Your task to perform on an android device: delete location history Image 0: 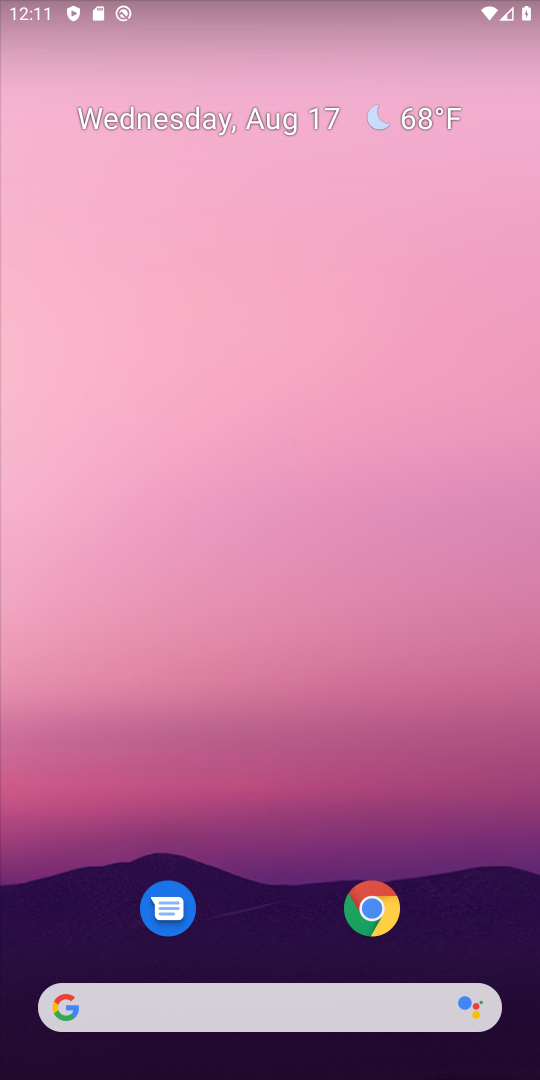
Step 0: drag from (276, 783) to (287, 123)
Your task to perform on an android device: delete location history Image 1: 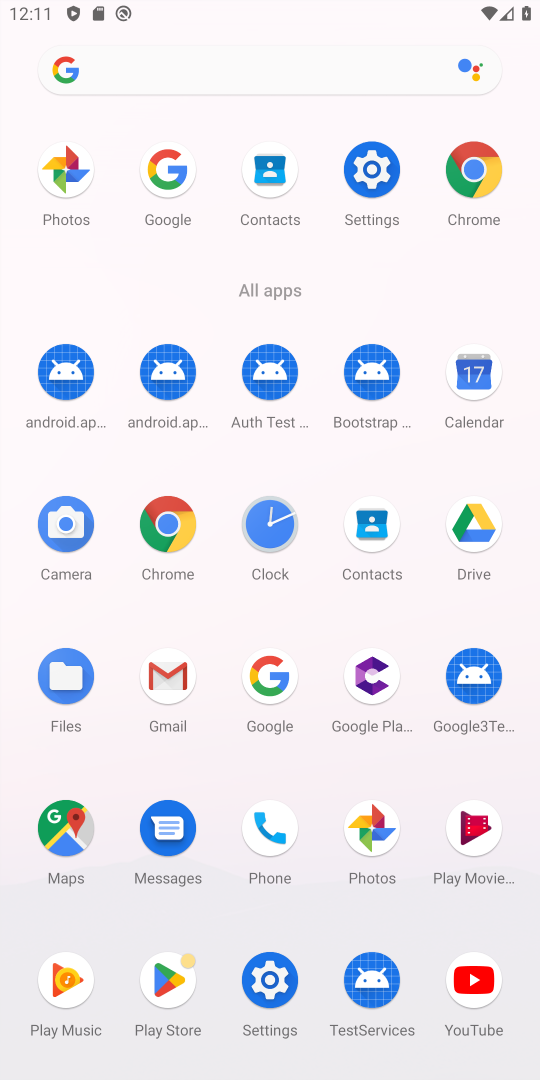
Step 1: click (61, 817)
Your task to perform on an android device: delete location history Image 2: 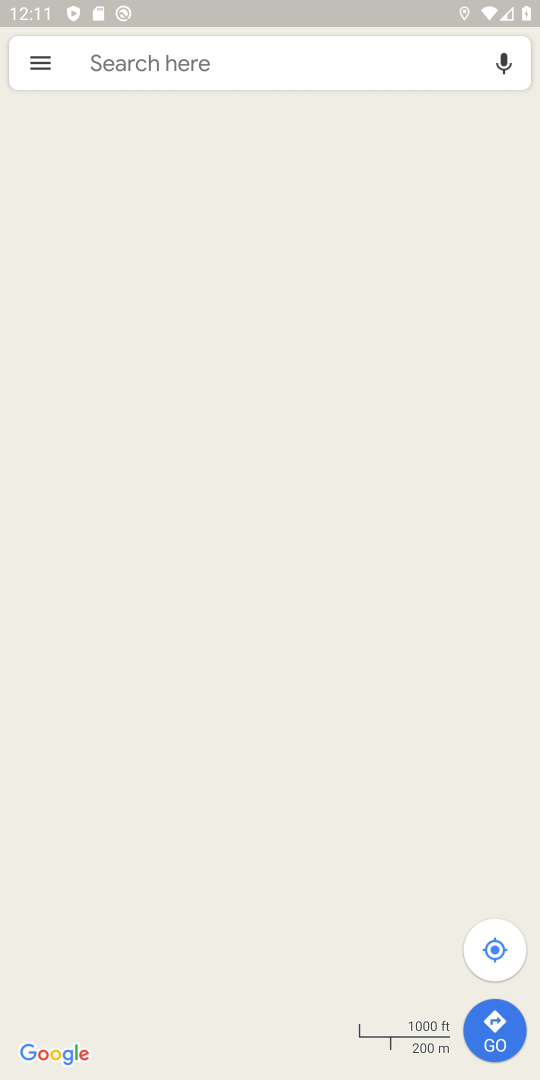
Step 2: click (37, 71)
Your task to perform on an android device: delete location history Image 3: 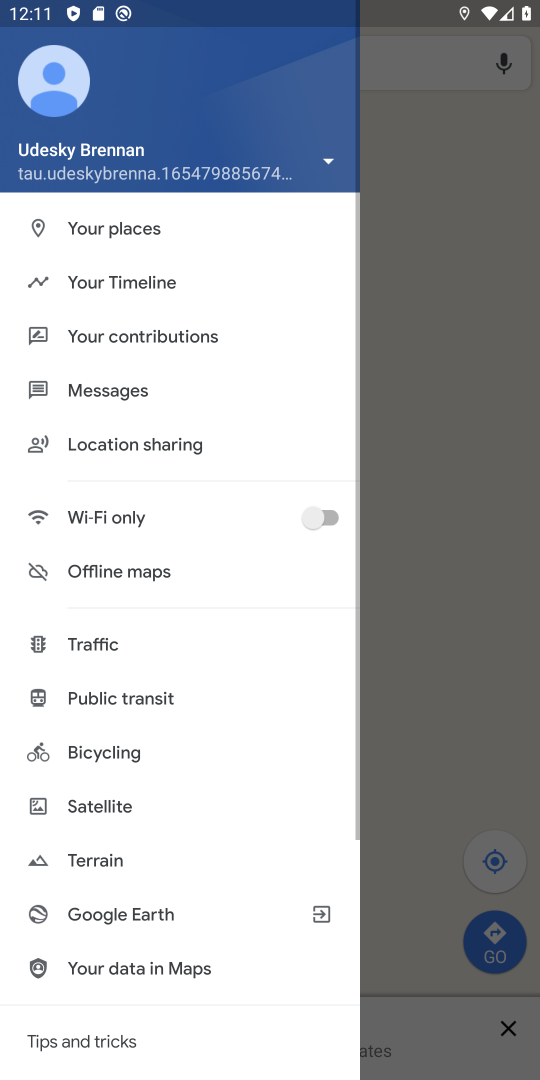
Step 3: click (81, 274)
Your task to perform on an android device: delete location history Image 4: 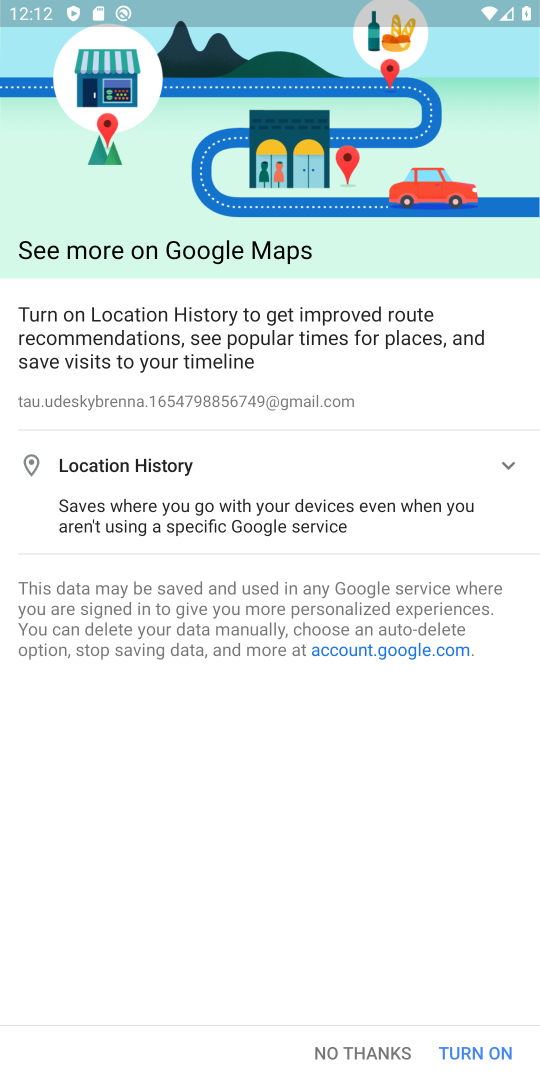
Step 4: click (446, 1045)
Your task to perform on an android device: delete location history Image 5: 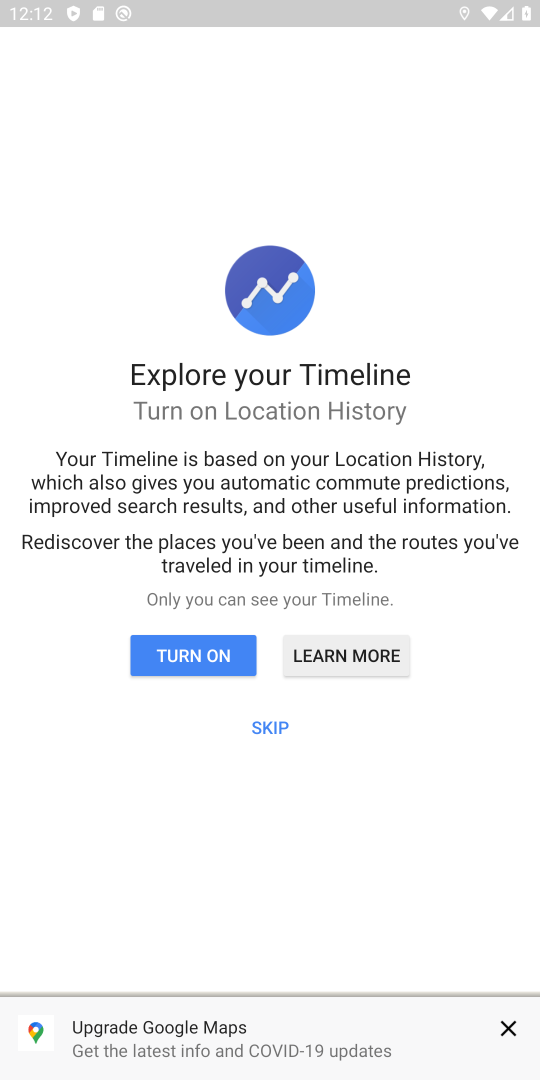
Step 5: click (293, 729)
Your task to perform on an android device: delete location history Image 6: 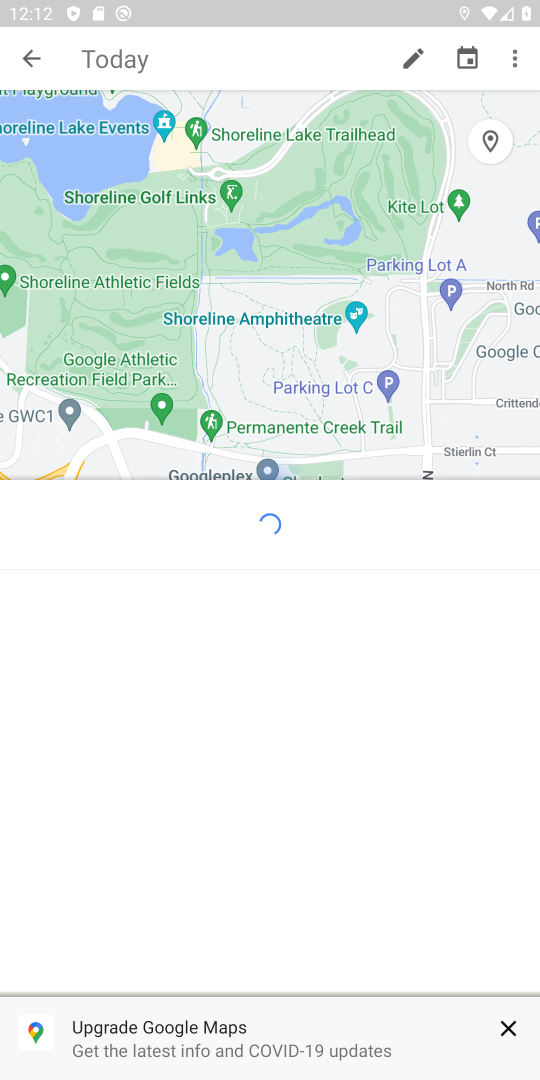
Step 6: click (503, 60)
Your task to perform on an android device: delete location history Image 7: 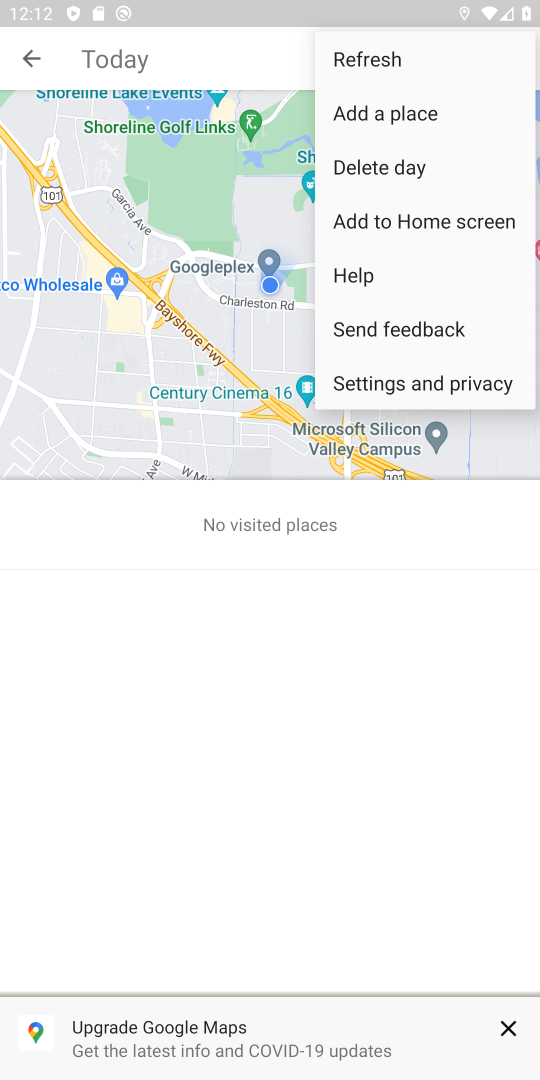
Step 7: click (429, 390)
Your task to perform on an android device: delete location history Image 8: 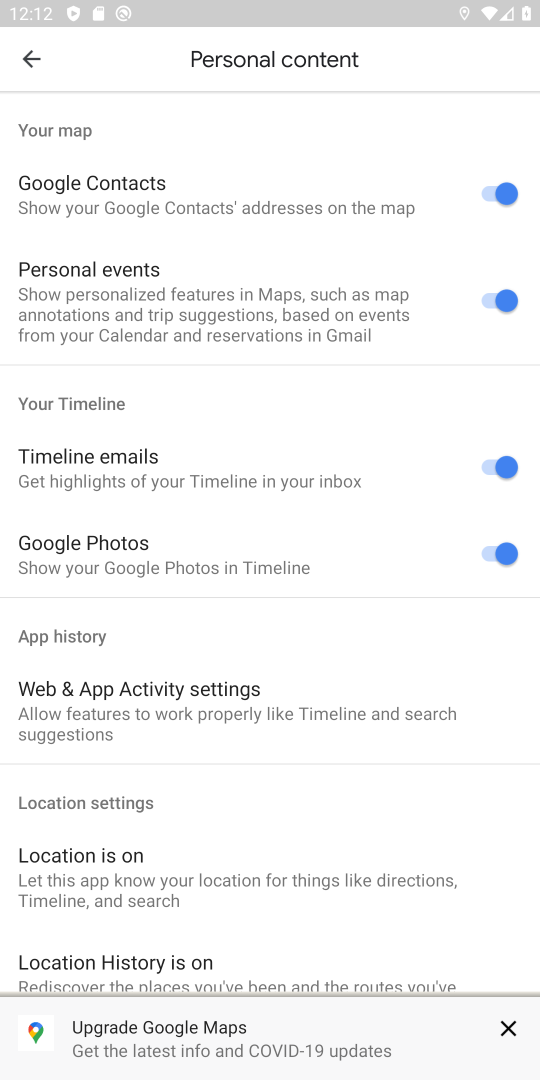
Step 8: drag from (197, 900) to (190, 321)
Your task to perform on an android device: delete location history Image 9: 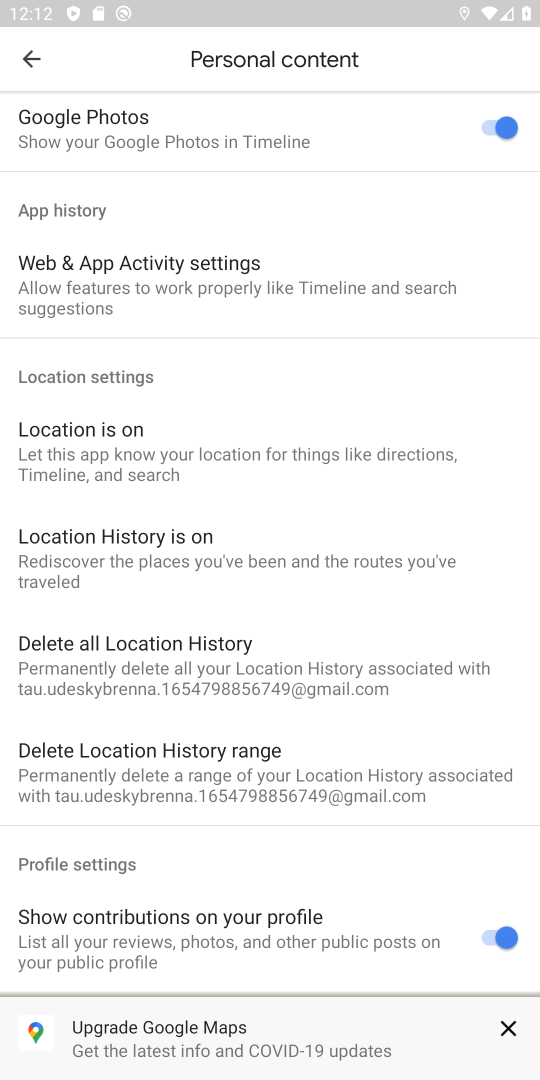
Step 9: click (178, 677)
Your task to perform on an android device: delete location history Image 10: 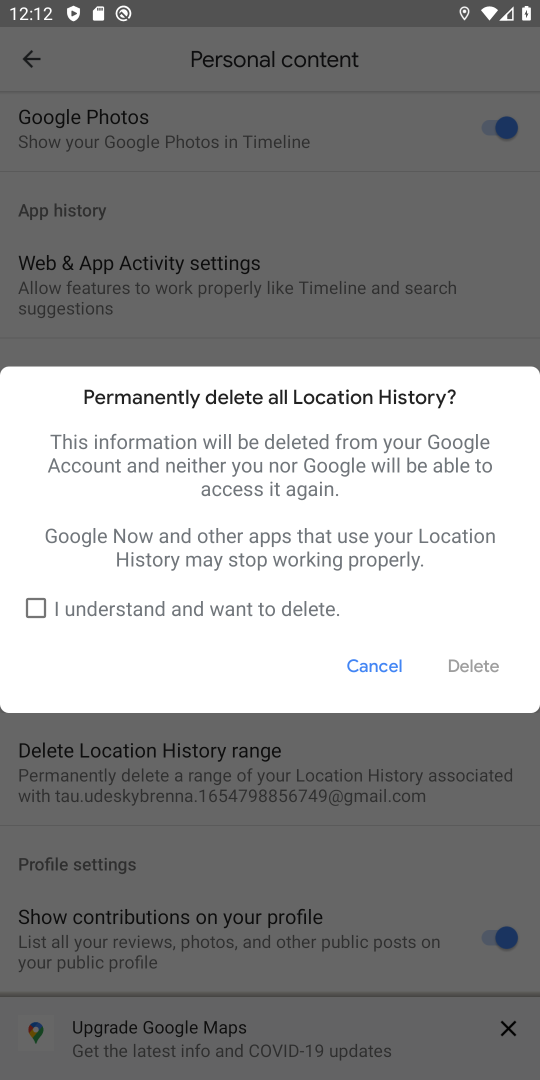
Step 10: click (118, 599)
Your task to perform on an android device: delete location history Image 11: 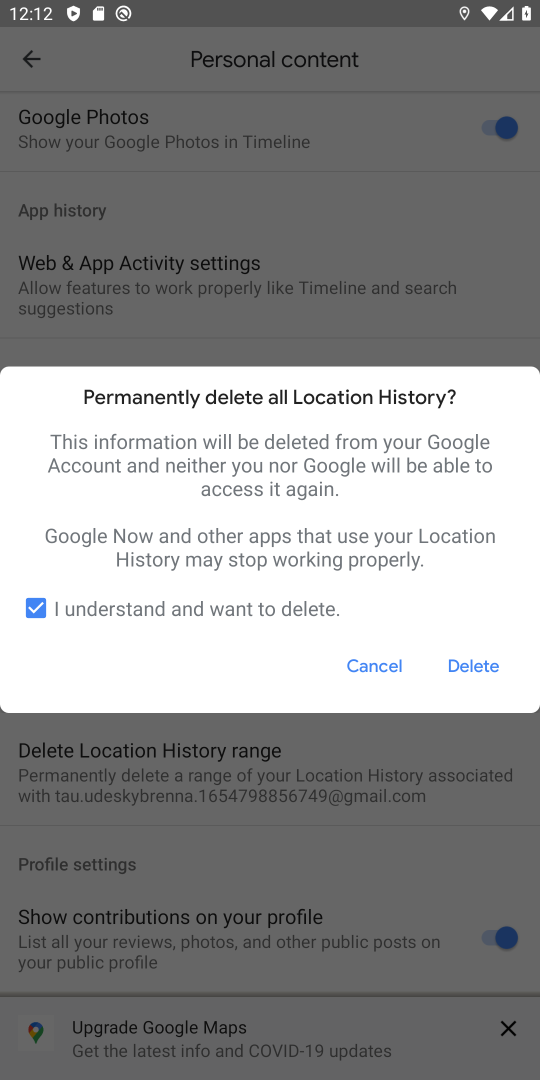
Step 11: click (461, 672)
Your task to perform on an android device: delete location history Image 12: 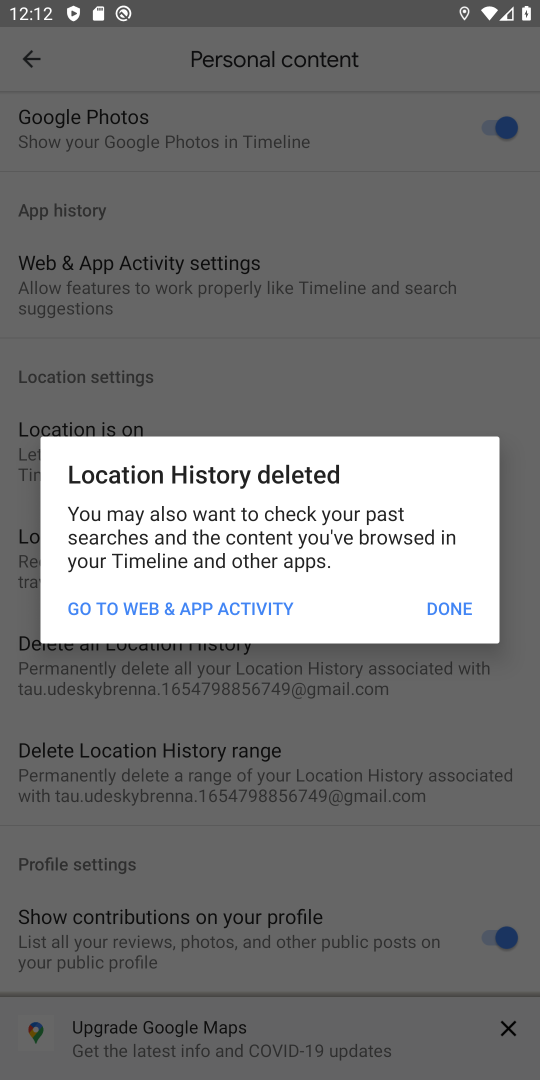
Step 12: click (434, 619)
Your task to perform on an android device: delete location history Image 13: 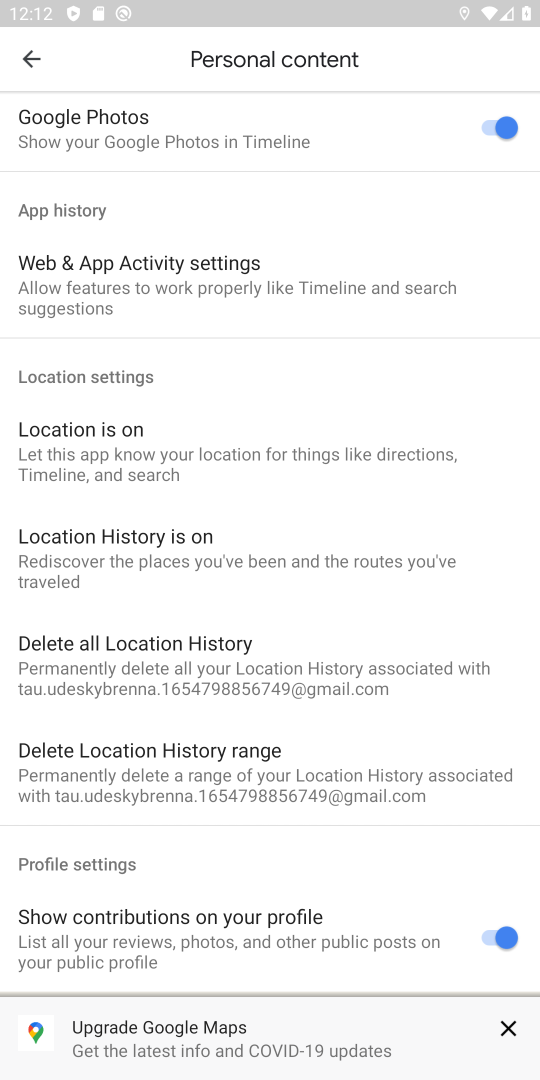
Step 13: task complete